Your task to perform on an android device: check android version Image 0: 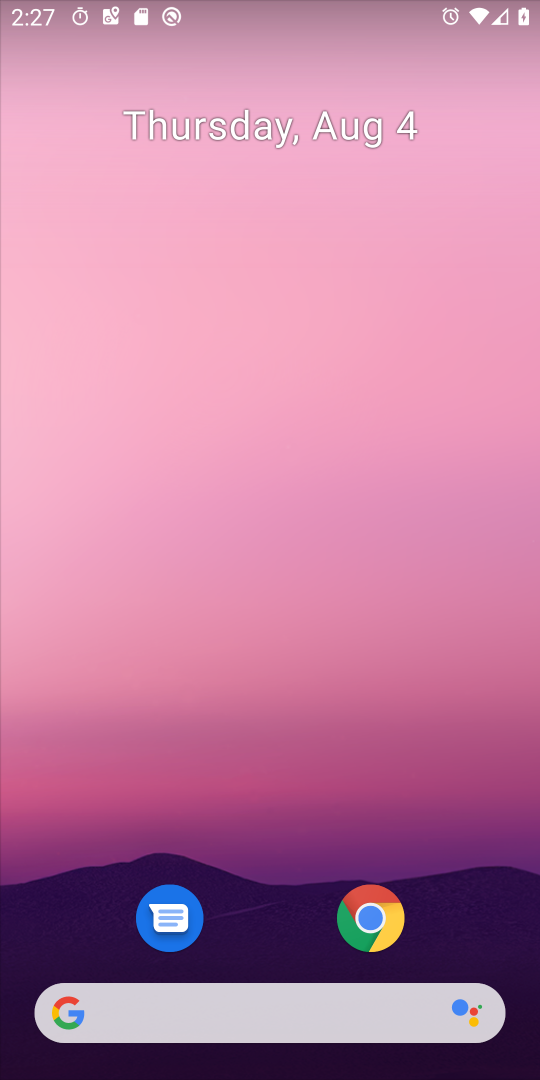
Step 0: drag from (251, 925) to (286, 259)
Your task to perform on an android device: check android version Image 1: 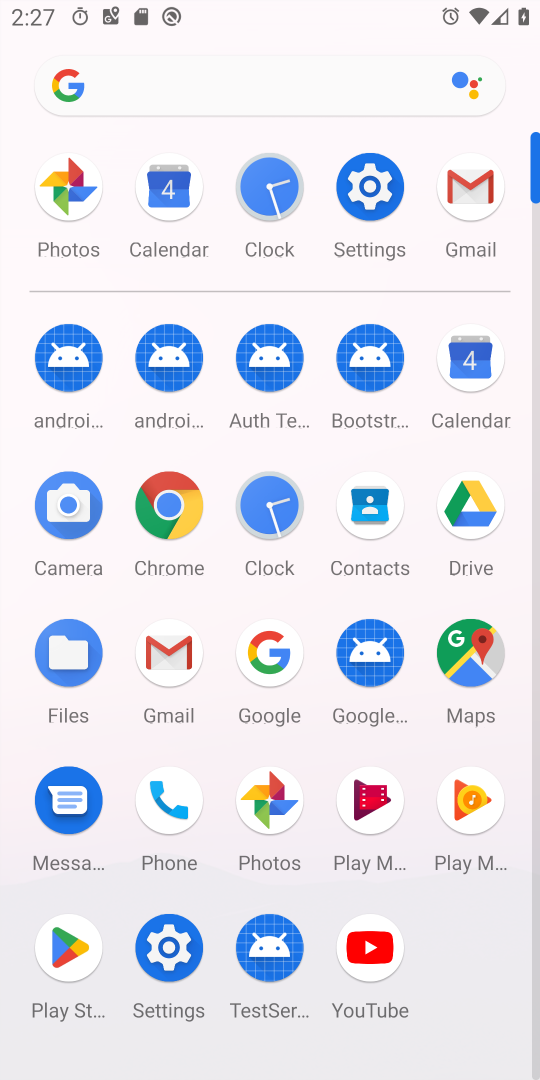
Step 1: click (375, 220)
Your task to perform on an android device: check android version Image 2: 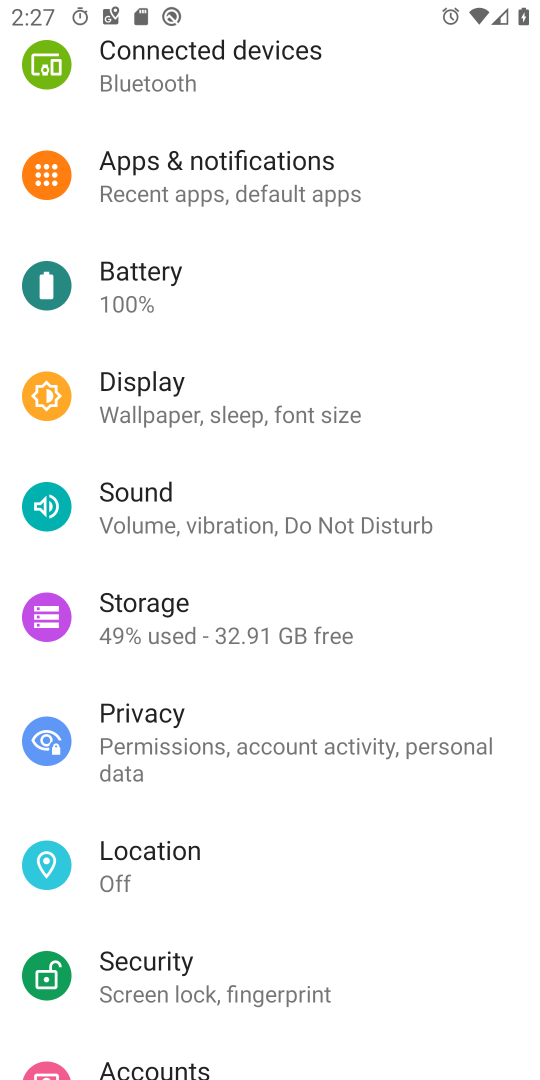
Step 2: task complete